Your task to perform on an android device: Open the calendar app, open the side menu, and click the "Day" option Image 0: 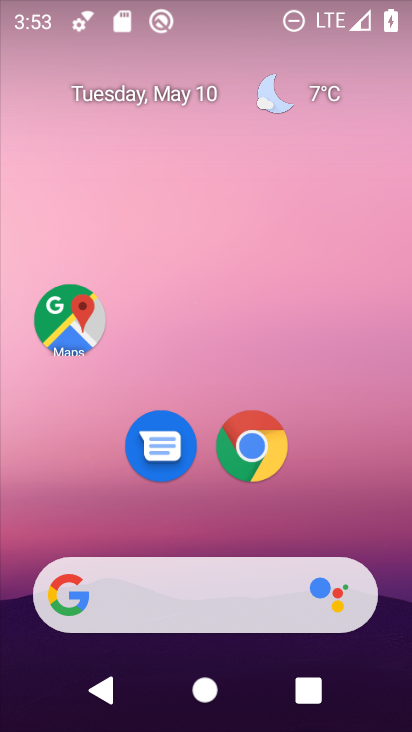
Step 0: drag from (270, 517) to (228, 78)
Your task to perform on an android device: Open the calendar app, open the side menu, and click the "Day" option Image 1: 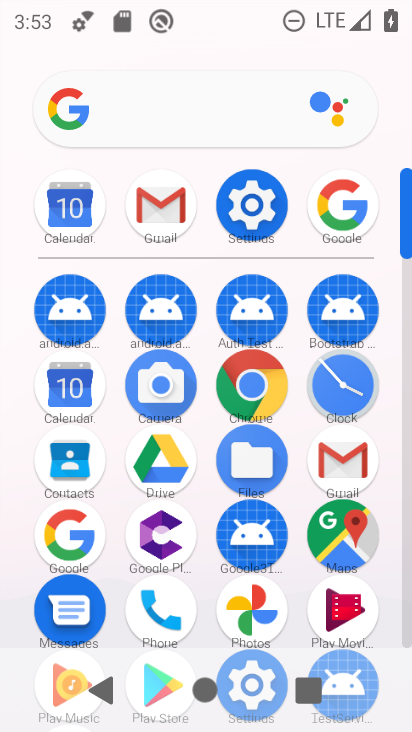
Step 1: click (73, 193)
Your task to perform on an android device: Open the calendar app, open the side menu, and click the "Day" option Image 2: 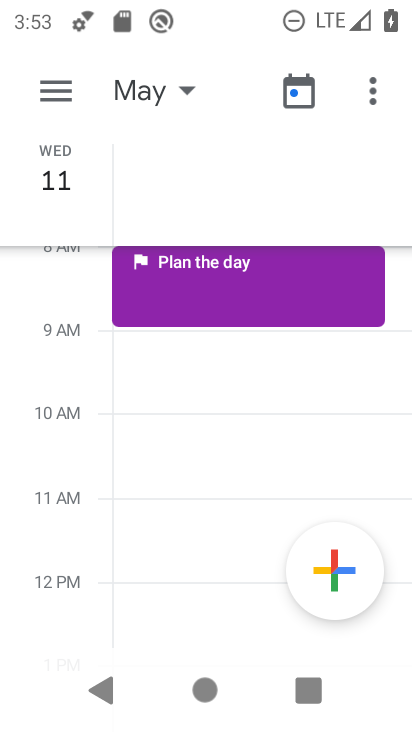
Step 2: click (49, 88)
Your task to perform on an android device: Open the calendar app, open the side menu, and click the "Day" option Image 3: 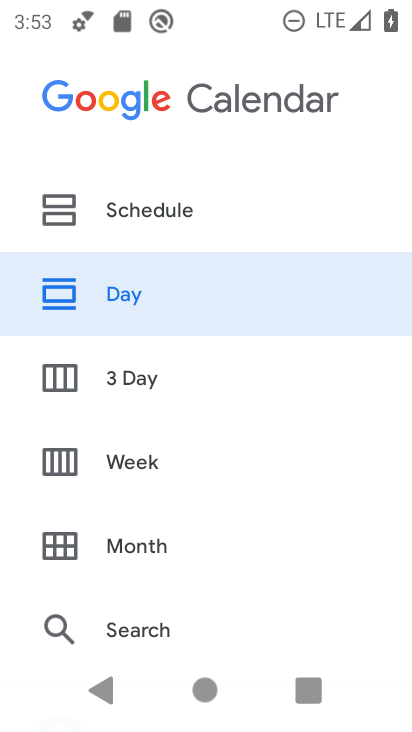
Step 3: click (128, 285)
Your task to perform on an android device: Open the calendar app, open the side menu, and click the "Day" option Image 4: 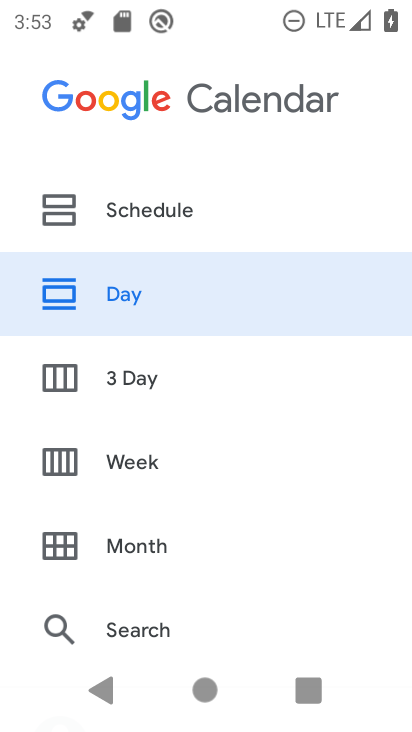
Step 4: task complete